Your task to perform on an android device: delete browsing data in the chrome app Image 0: 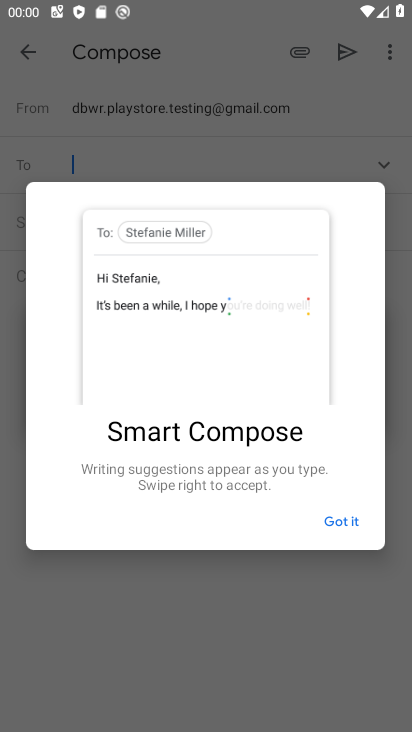
Step 0: press home button
Your task to perform on an android device: delete browsing data in the chrome app Image 1: 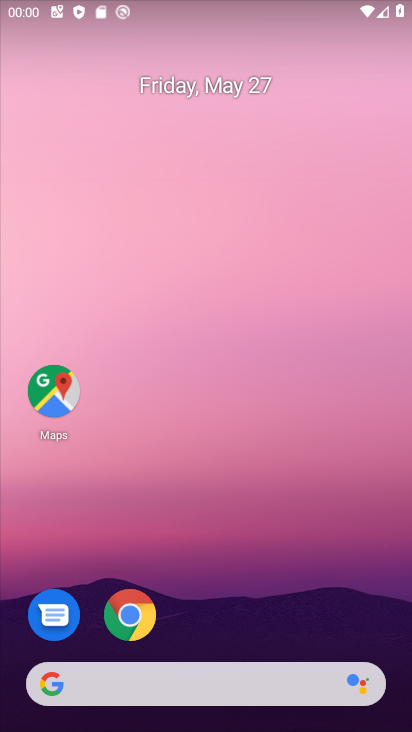
Step 1: click (144, 612)
Your task to perform on an android device: delete browsing data in the chrome app Image 2: 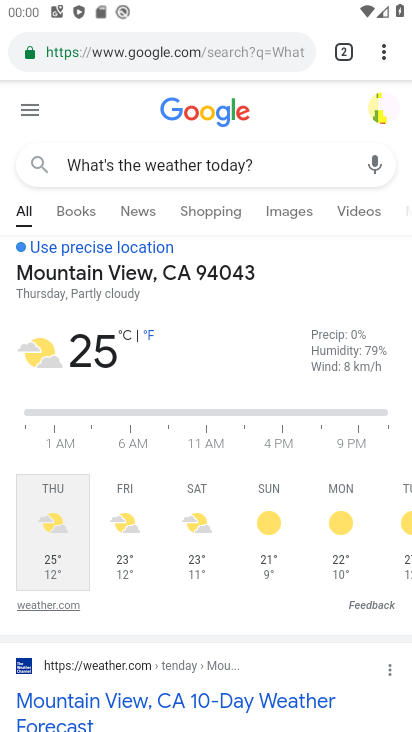
Step 2: drag from (379, 50) to (252, 571)
Your task to perform on an android device: delete browsing data in the chrome app Image 3: 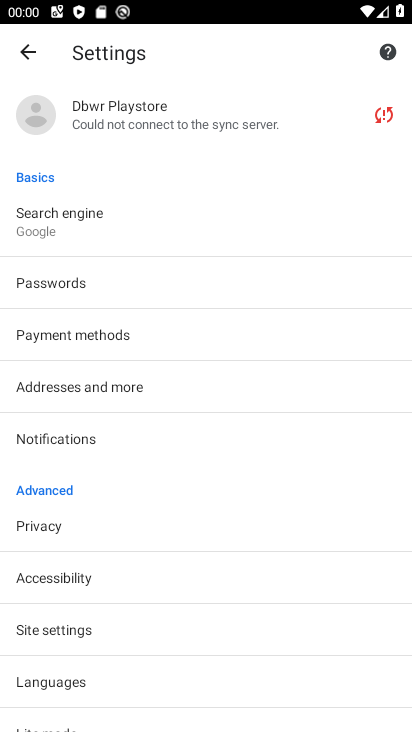
Step 3: click (44, 538)
Your task to perform on an android device: delete browsing data in the chrome app Image 4: 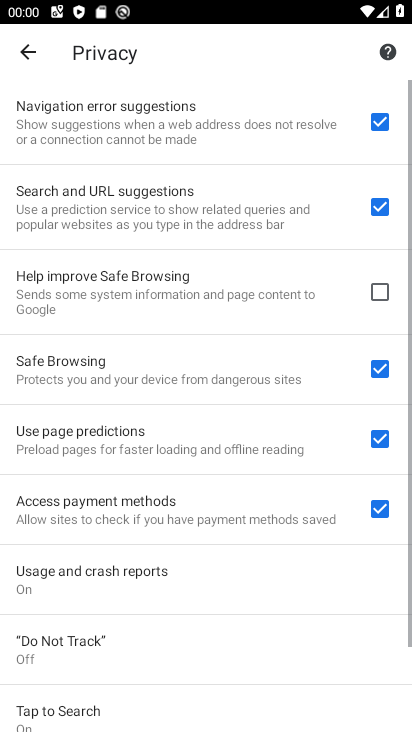
Step 4: drag from (154, 660) to (298, 106)
Your task to perform on an android device: delete browsing data in the chrome app Image 5: 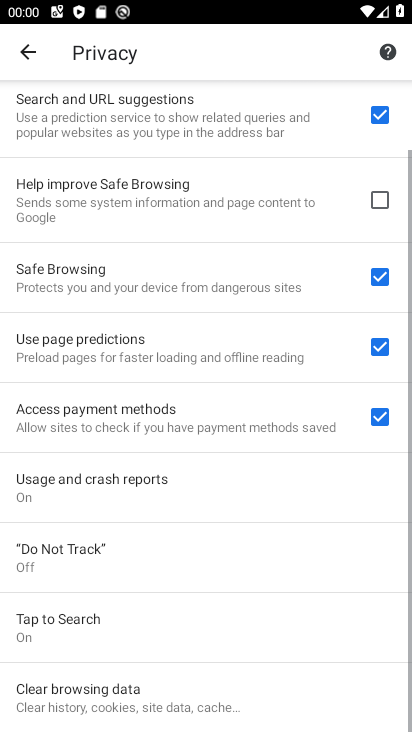
Step 5: click (25, 701)
Your task to perform on an android device: delete browsing data in the chrome app Image 6: 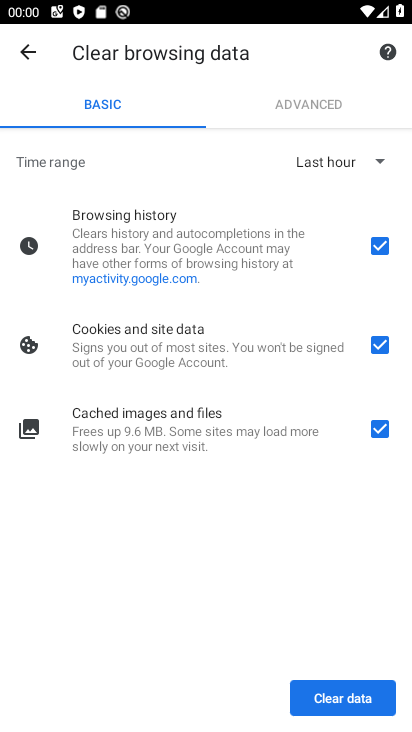
Step 6: click (344, 699)
Your task to perform on an android device: delete browsing data in the chrome app Image 7: 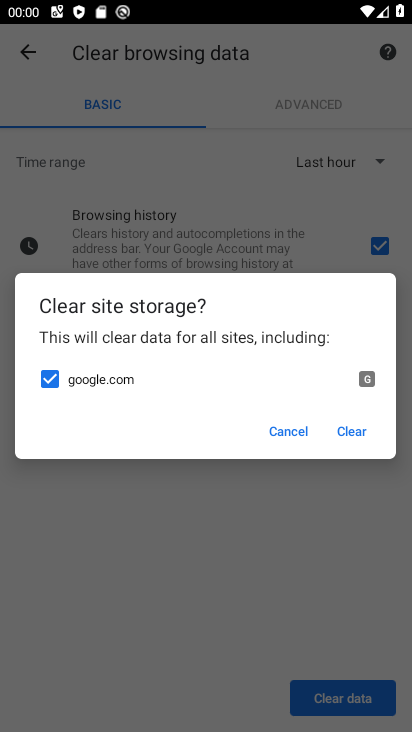
Step 7: click (347, 435)
Your task to perform on an android device: delete browsing data in the chrome app Image 8: 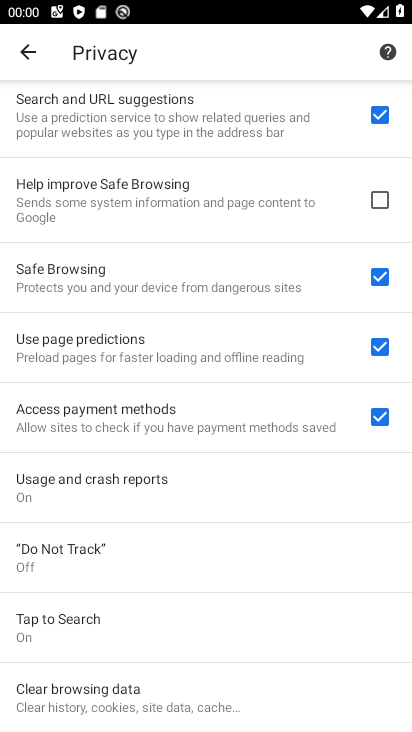
Step 8: task complete